Your task to perform on an android device: Go to sound settings Image 0: 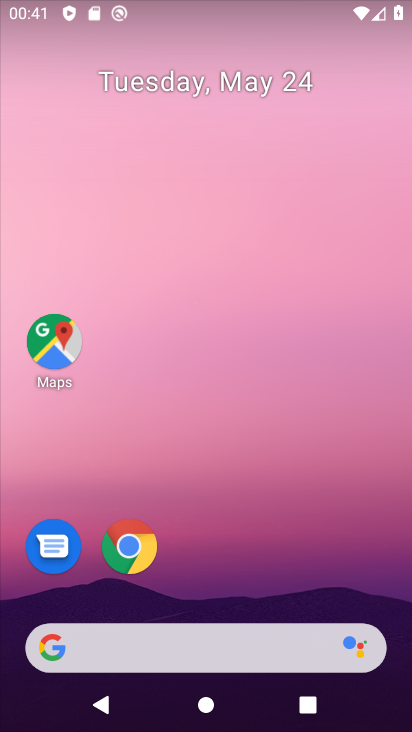
Step 0: drag from (264, 650) to (260, 55)
Your task to perform on an android device: Go to sound settings Image 1: 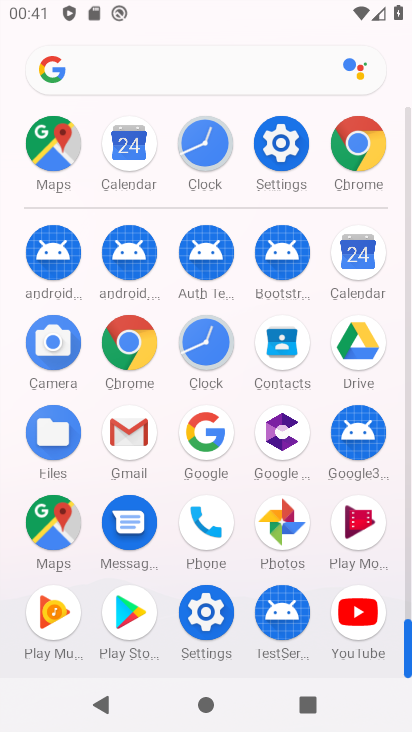
Step 1: click (288, 141)
Your task to perform on an android device: Go to sound settings Image 2: 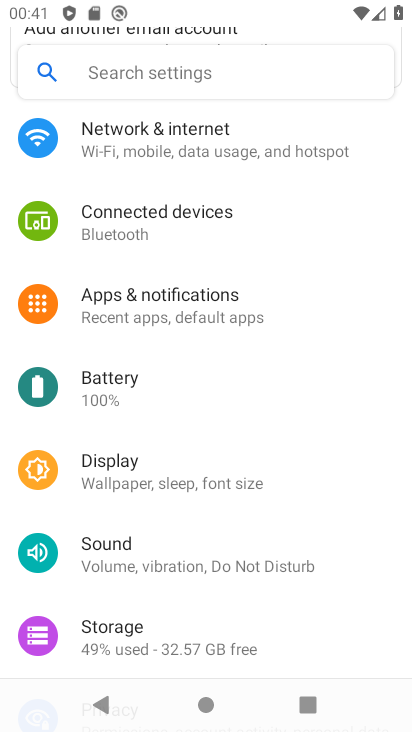
Step 2: click (171, 195)
Your task to perform on an android device: Go to sound settings Image 3: 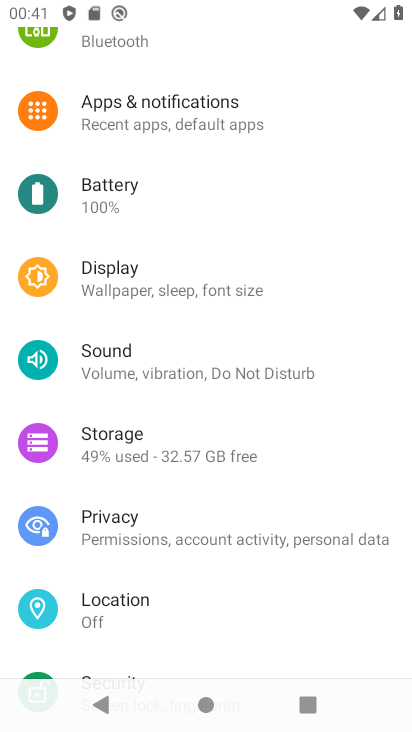
Step 3: click (139, 360)
Your task to perform on an android device: Go to sound settings Image 4: 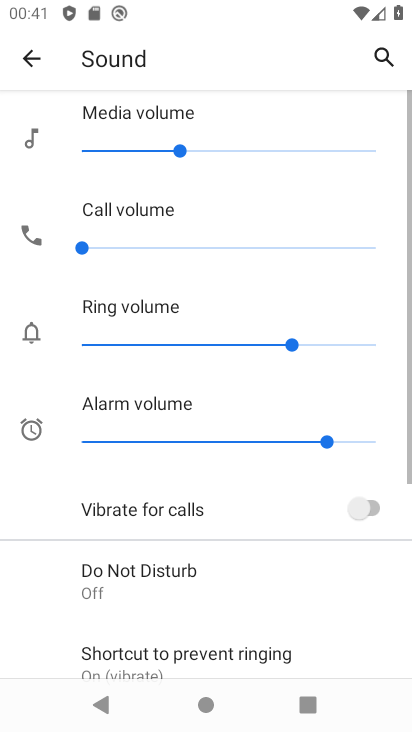
Step 4: task complete